Your task to perform on an android device: change the clock display to digital Image 0: 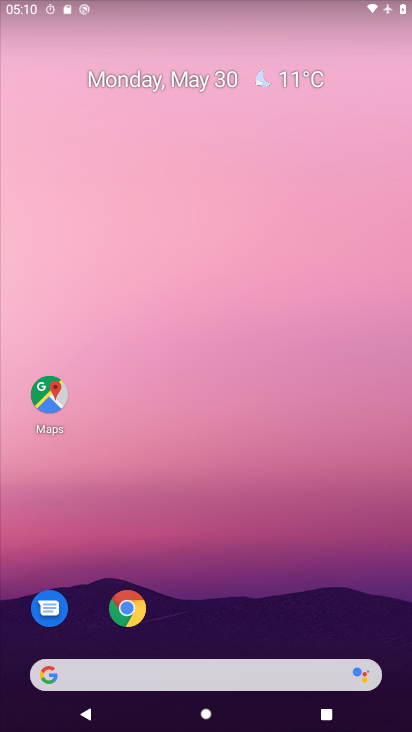
Step 0: drag from (296, 158) to (237, 16)
Your task to perform on an android device: change the clock display to digital Image 1: 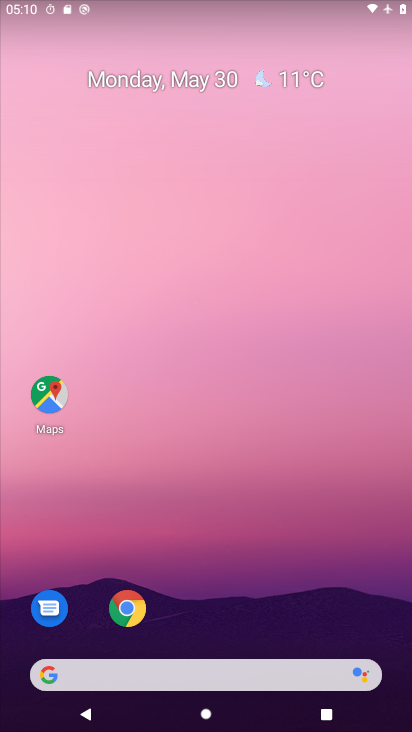
Step 1: drag from (258, 499) to (191, 5)
Your task to perform on an android device: change the clock display to digital Image 2: 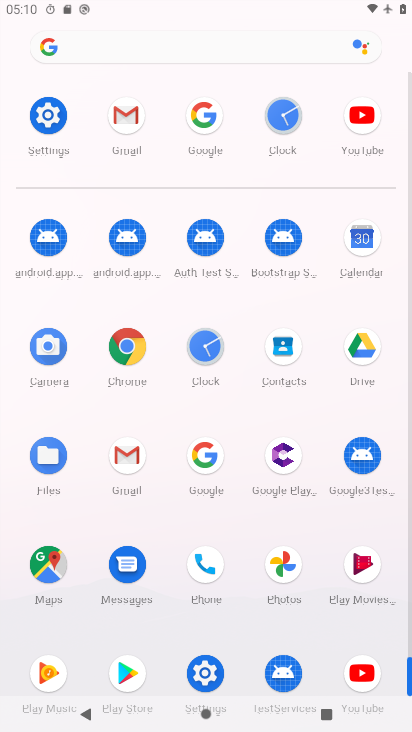
Step 2: click (282, 126)
Your task to perform on an android device: change the clock display to digital Image 3: 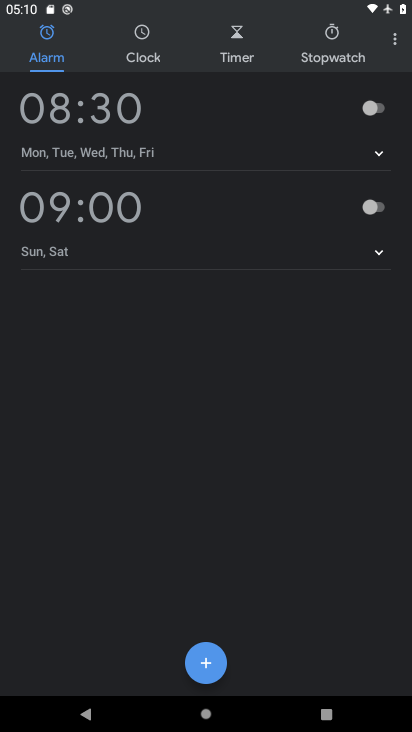
Step 3: click (397, 44)
Your task to perform on an android device: change the clock display to digital Image 4: 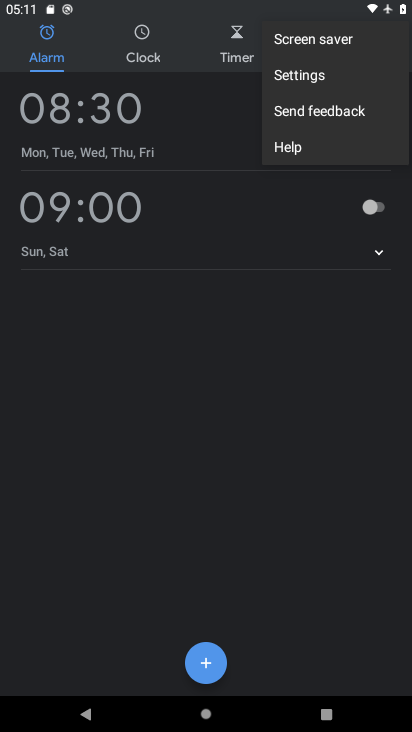
Step 4: click (323, 67)
Your task to perform on an android device: change the clock display to digital Image 5: 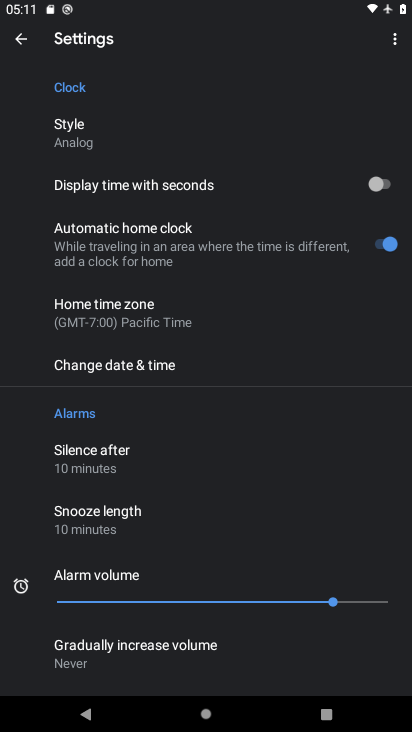
Step 5: click (166, 133)
Your task to perform on an android device: change the clock display to digital Image 6: 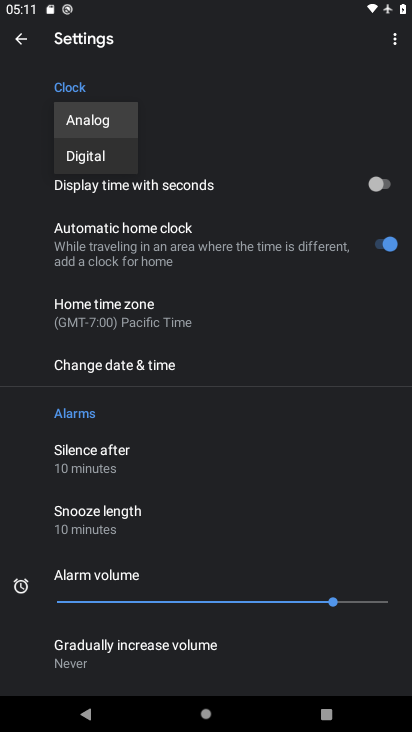
Step 6: click (111, 158)
Your task to perform on an android device: change the clock display to digital Image 7: 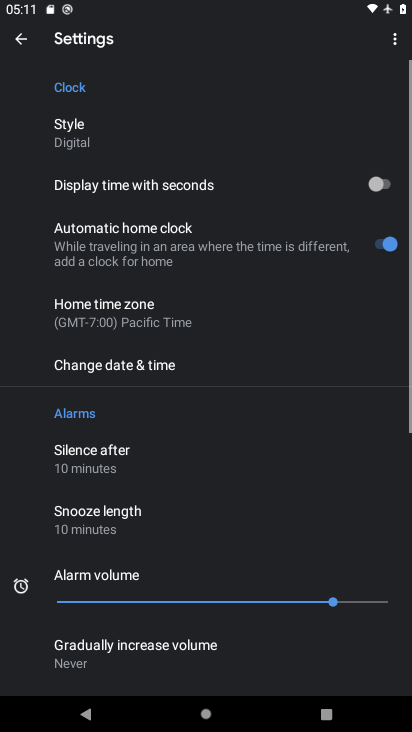
Step 7: task complete